Your task to perform on an android device: Turn on the flashlight Image 0: 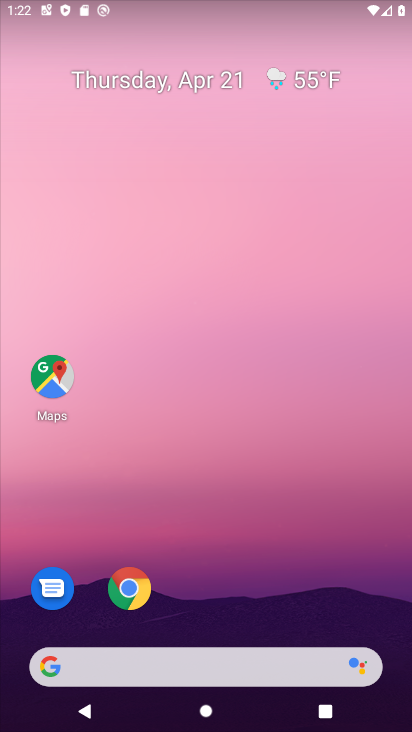
Step 0: drag from (297, 4) to (295, 564)
Your task to perform on an android device: Turn on the flashlight Image 1: 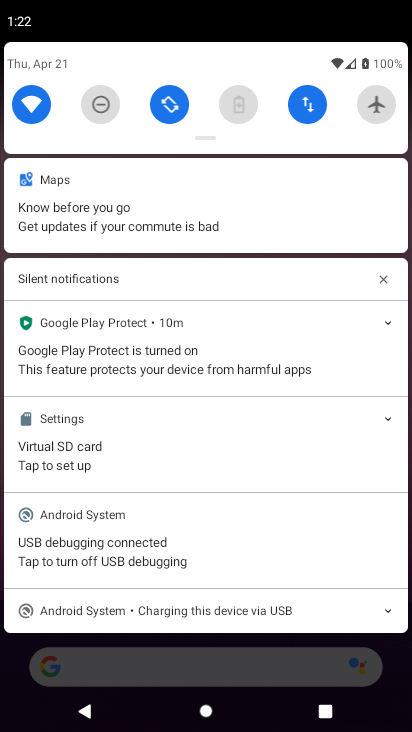
Step 1: task complete